Your task to perform on an android device: Open the calendar app, open the side menu, and click the "Day" option Image 0: 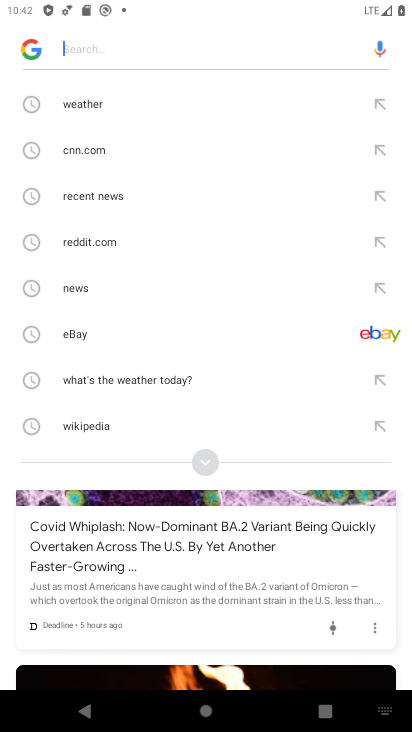
Step 0: press home button
Your task to perform on an android device: Open the calendar app, open the side menu, and click the "Day" option Image 1: 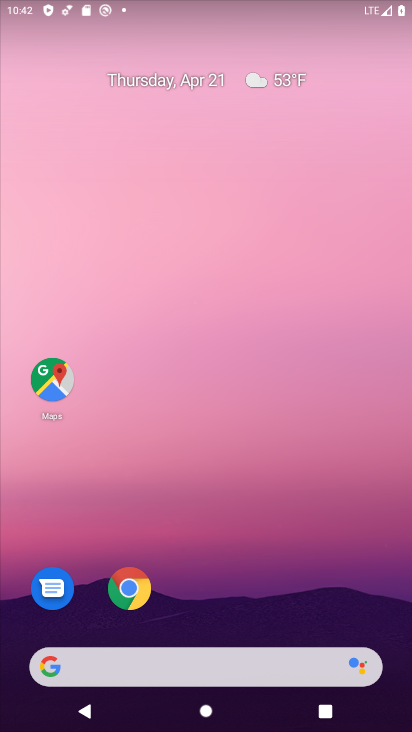
Step 1: drag from (210, 586) to (214, 324)
Your task to perform on an android device: Open the calendar app, open the side menu, and click the "Day" option Image 2: 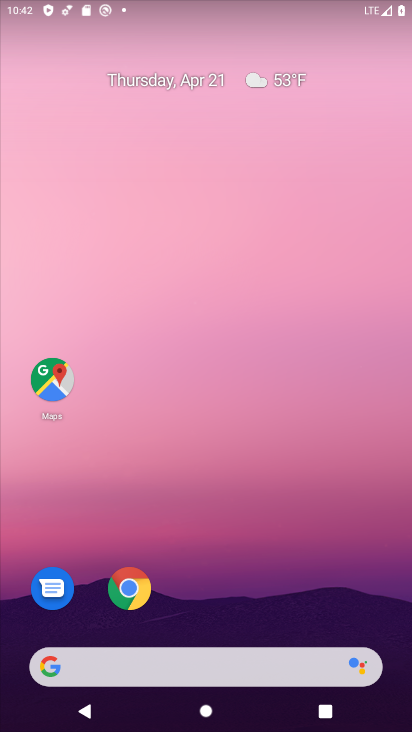
Step 2: drag from (214, 629) to (209, 241)
Your task to perform on an android device: Open the calendar app, open the side menu, and click the "Day" option Image 3: 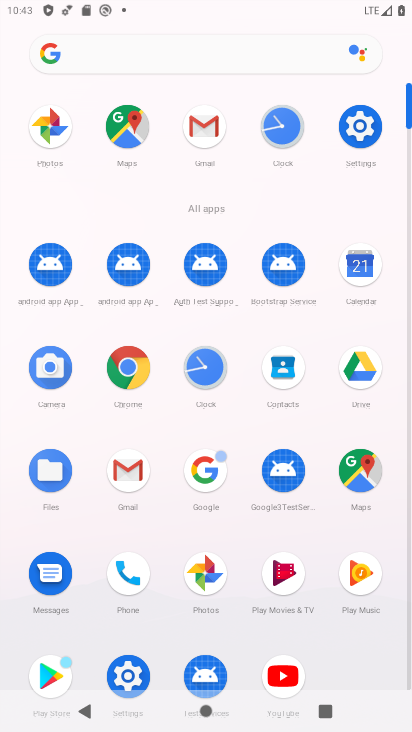
Step 3: click (367, 256)
Your task to perform on an android device: Open the calendar app, open the side menu, and click the "Day" option Image 4: 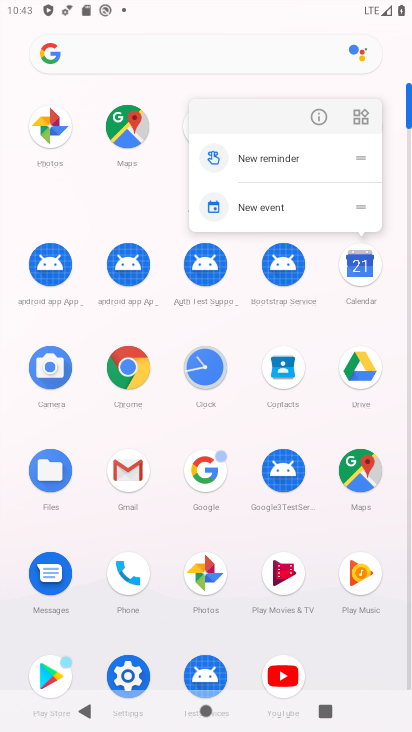
Step 4: click (363, 269)
Your task to perform on an android device: Open the calendar app, open the side menu, and click the "Day" option Image 5: 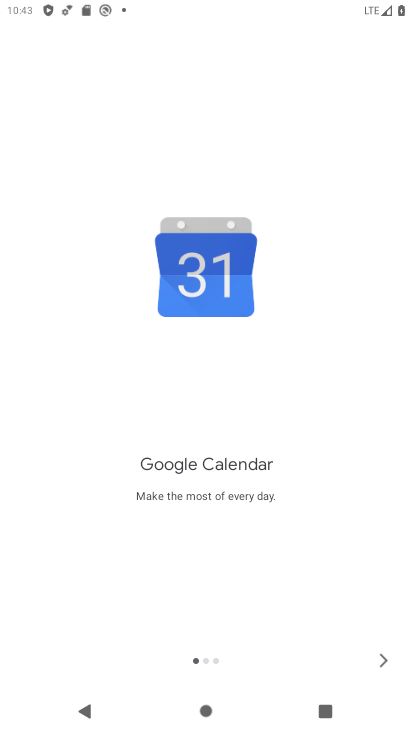
Step 5: click (383, 653)
Your task to perform on an android device: Open the calendar app, open the side menu, and click the "Day" option Image 6: 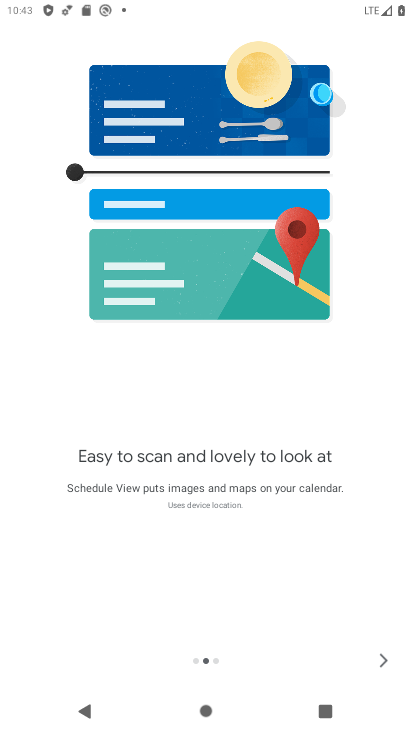
Step 6: click (383, 653)
Your task to perform on an android device: Open the calendar app, open the side menu, and click the "Day" option Image 7: 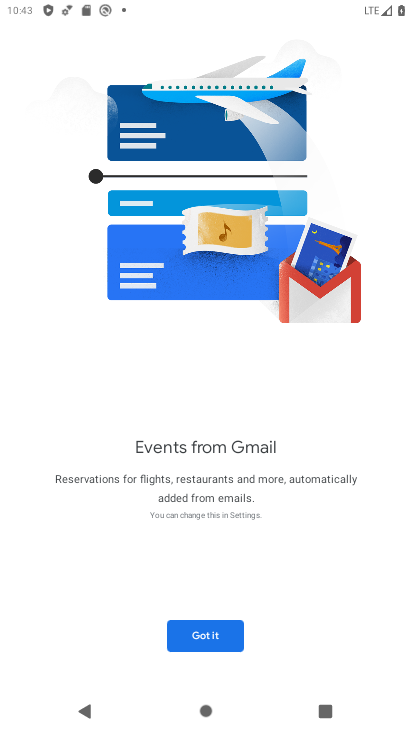
Step 7: click (191, 640)
Your task to perform on an android device: Open the calendar app, open the side menu, and click the "Day" option Image 8: 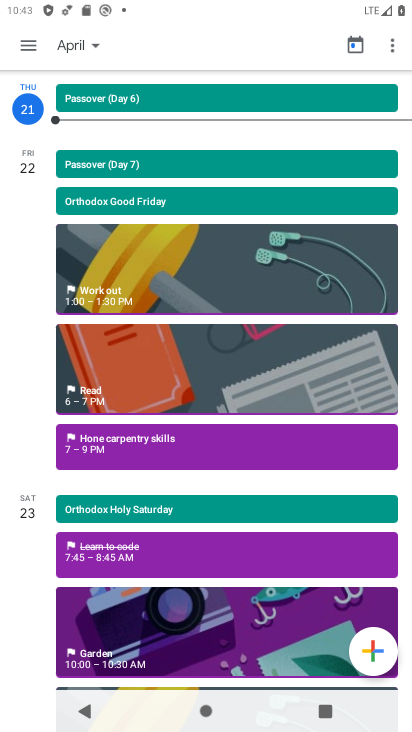
Step 8: click (68, 37)
Your task to perform on an android device: Open the calendar app, open the side menu, and click the "Day" option Image 9: 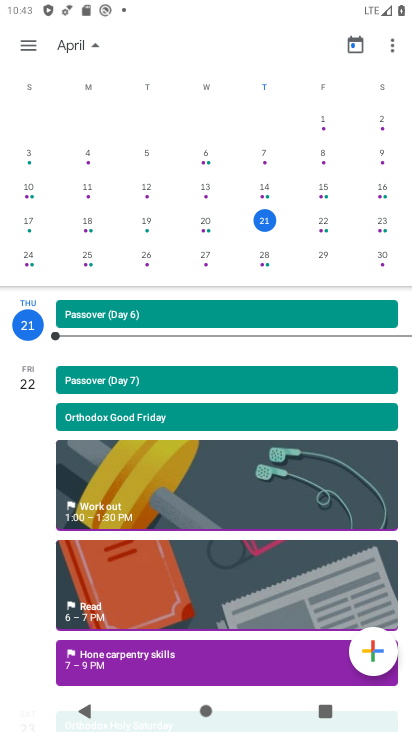
Step 9: drag from (382, 239) to (8, 284)
Your task to perform on an android device: Open the calendar app, open the side menu, and click the "Day" option Image 10: 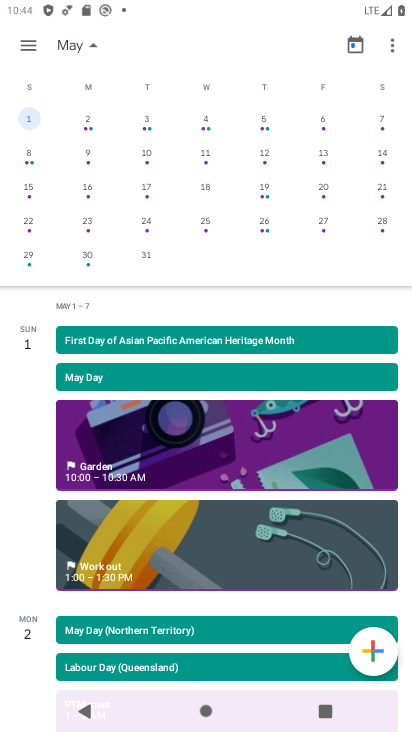
Step 10: click (25, 41)
Your task to perform on an android device: Open the calendar app, open the side menu, and click the "Day" option Image 11: 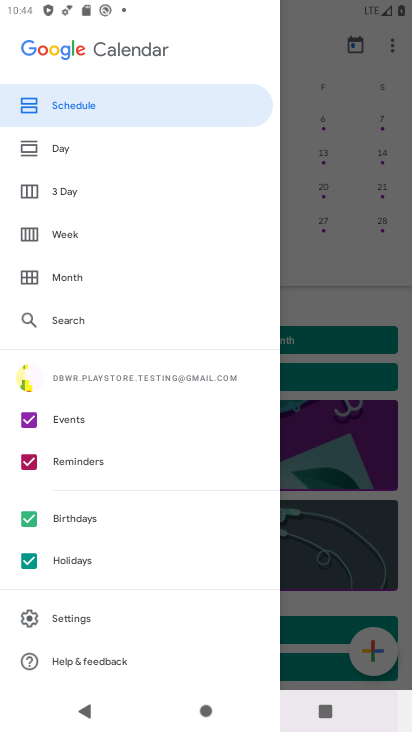
Step 11: click (61, 155)
Your task to perform on an android device: Open the calendar app, open the side menu, and click the "Day" option Image 12: 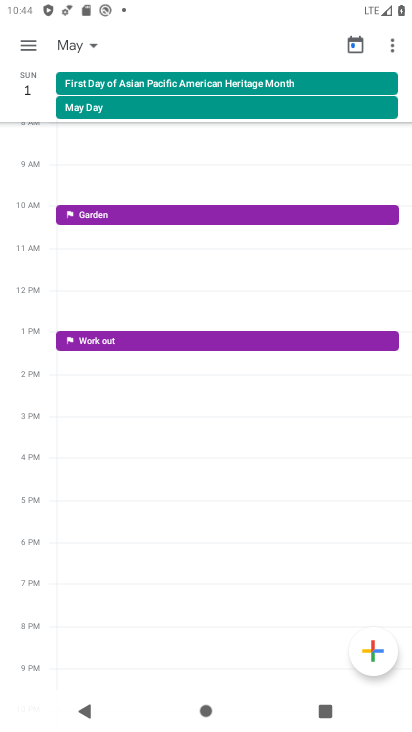
Step 12: task complete